Your task to perform on an android device: Open sound settings Image 0: 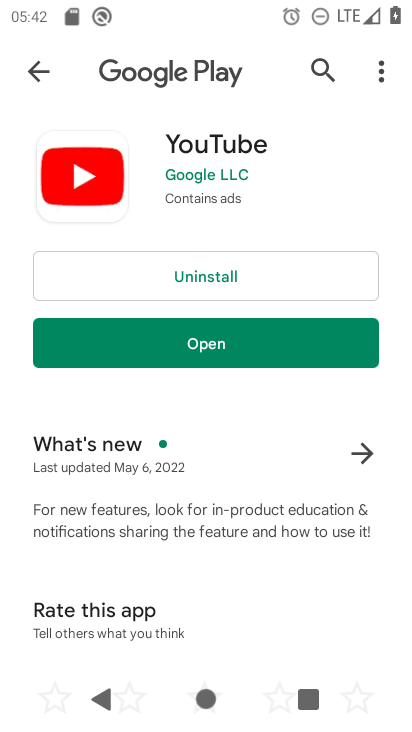
Step 0: press home button
Your task to perform on an android device: Open sound settings Image 1: 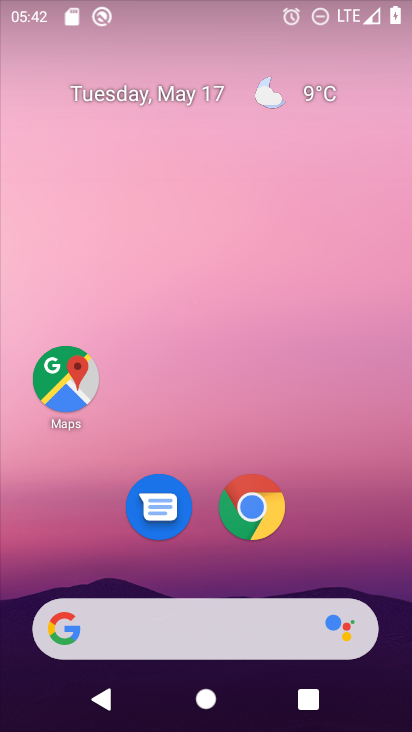
Step 1: drag from (333, 531) to (149, 12)
Your task to perform on an android device: Open sound settings Image 2: 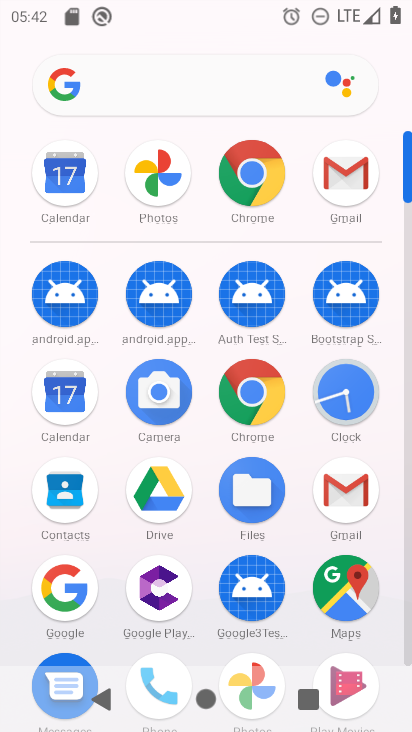
Step 2: drag from (210, 564) to (190, 150)
Your task to perform on an android device: Open sound settings Image 3: 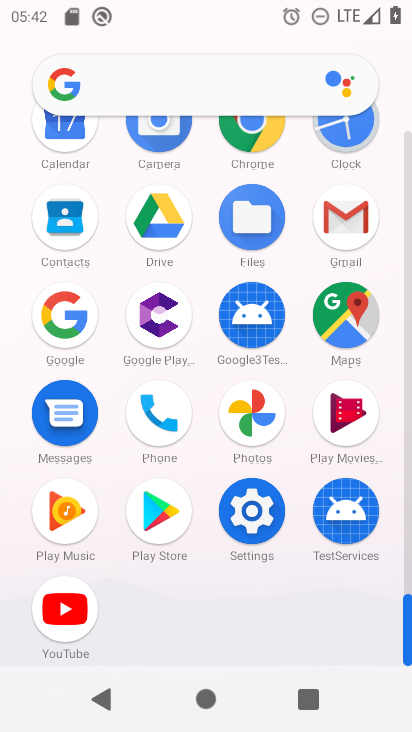
Step 3: click (237, 514)
Your task to perform on an android device: Open sound settings Image 4: 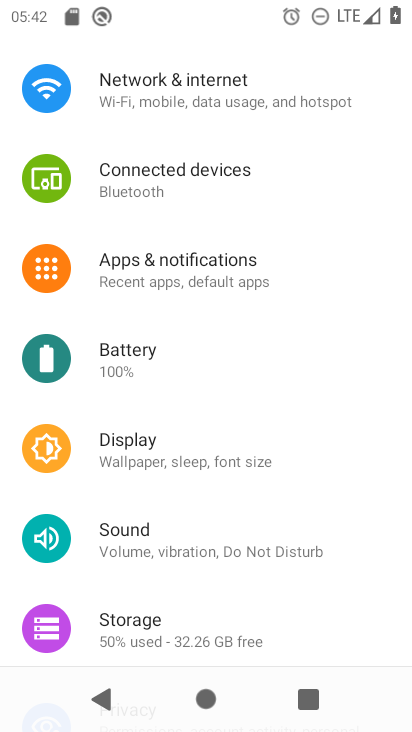
Step 4: click (208, 517)
Your task to perform on an android device: Open sound settings Image 5: 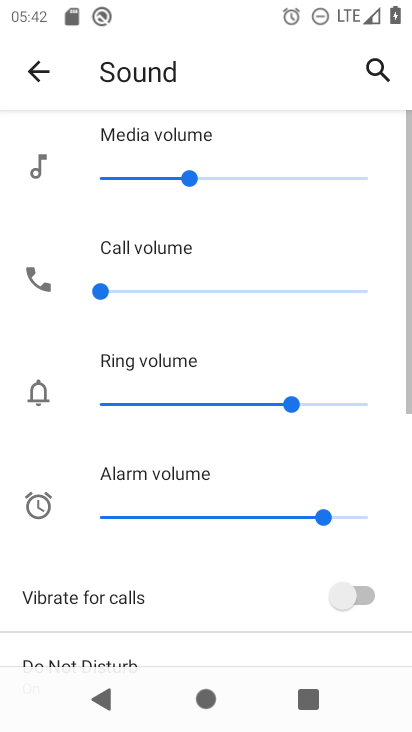
Step 5: task complete